Your task to perform on an android device: toggle notification dots Image 0: 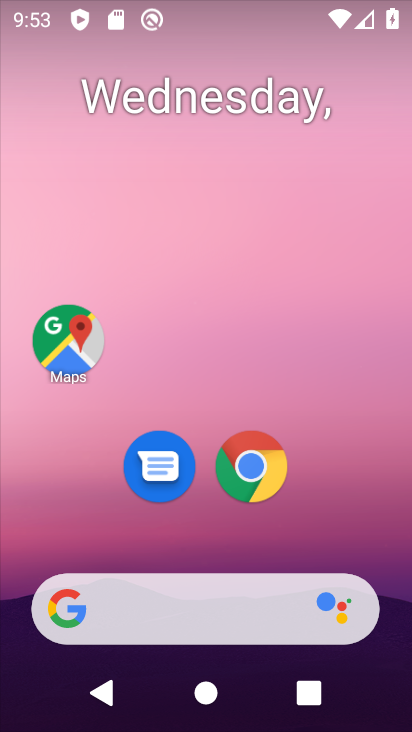
Step 0: drag from (226, 728) to (220, 218)
Your task to perform on an android device: toggle notification dots Image 1: 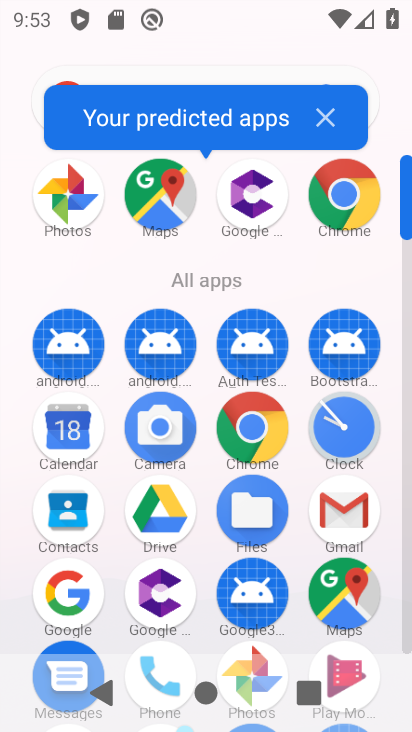
Step 1: drag from (199, 597) to (224, 230)
Your task to perform on an android device: toggle notification dots Image 2: 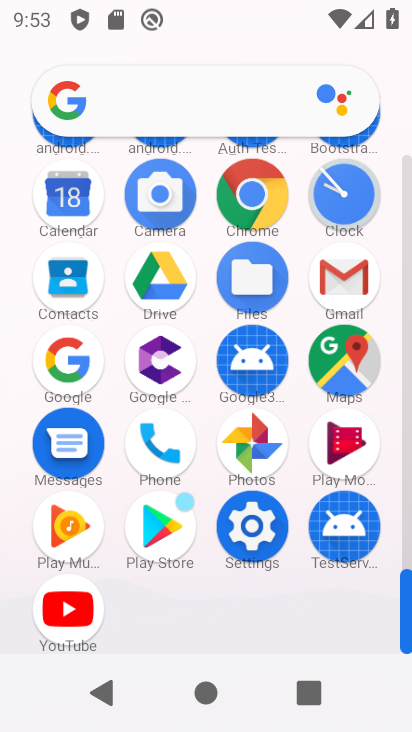
Step 2: click (256, 528)
Your task to perform on an android device: toggle notification dots Image 3: 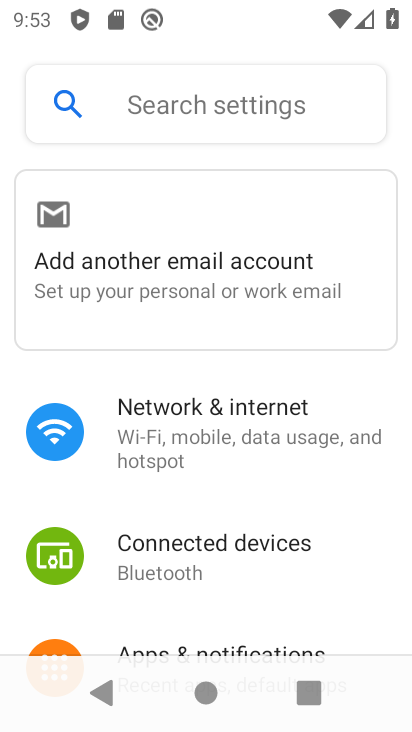
Step 3: drag from (192, 621) to (209, 342)
Your task to perform on an android device: toggle notification dots Image 4: 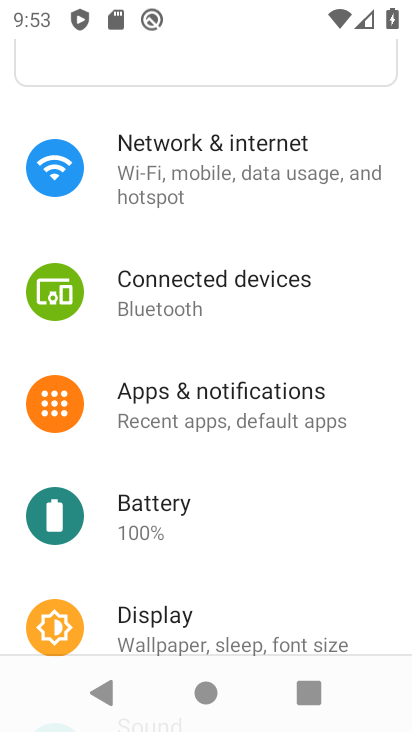
Step 4: click (213, 402)
Your task to perform on an android device: toggle notification dots Image 5: 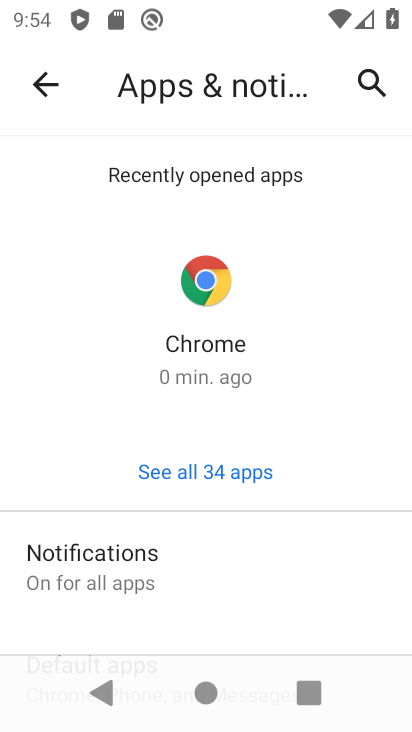
Step 5: drag from (162, 632) to (147, 370)
Your task to perform on an android device: toggle notification dots Image 6: 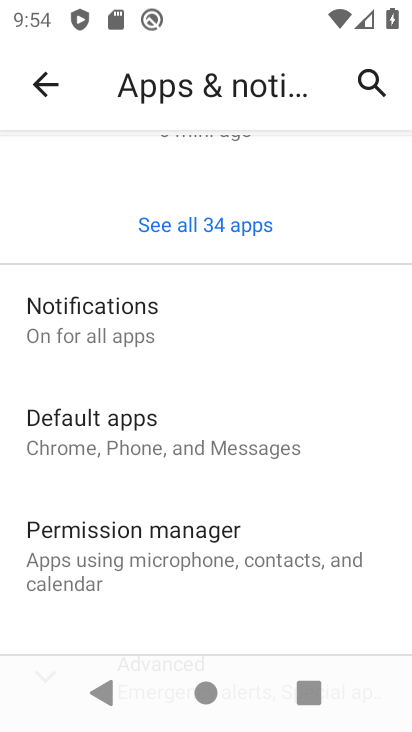
Step 6: click (71, 315)
Your task to perform on an android device: toggle notification dots Image 7: 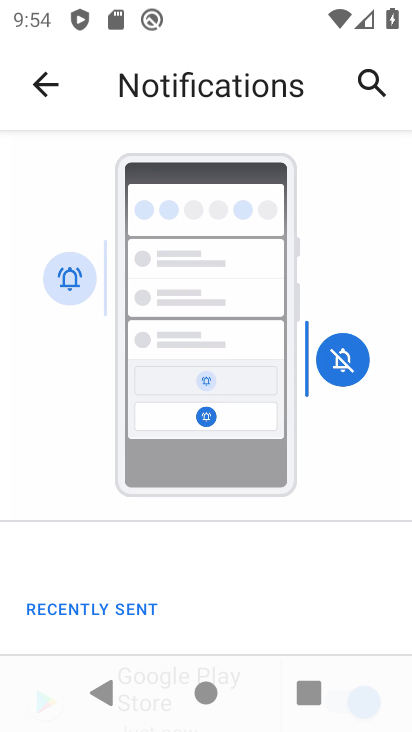
Step 7: drag from (145, 622) to (151, 257)
Your task to perform on an android device: toggle notification dots Image 8: 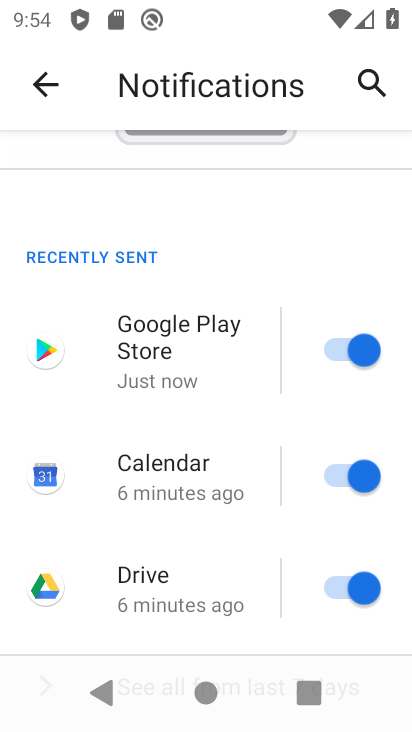
Step 8: drag from (175, 608) to (175, 292)
Your task to perform on an android device: toggle notification dots Image 9: 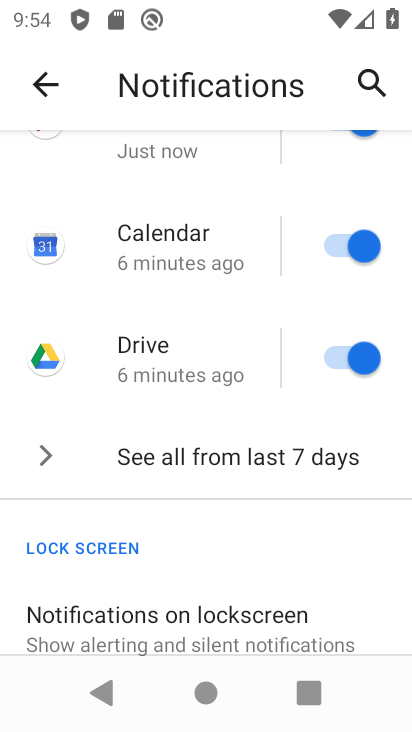
Step 9: drag from (200, 619) to (197, 414)
Your task to perform on an android device: toggle notification dots Image 10: 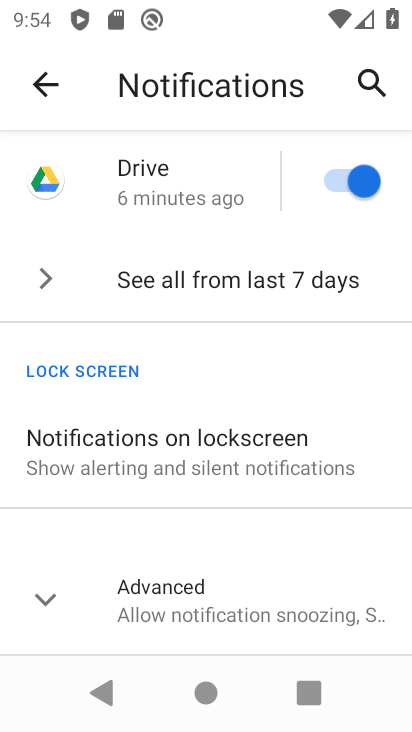
Step 10: click (158, 596)
Your task to perform on an android device: toggle notification dots Image 11: 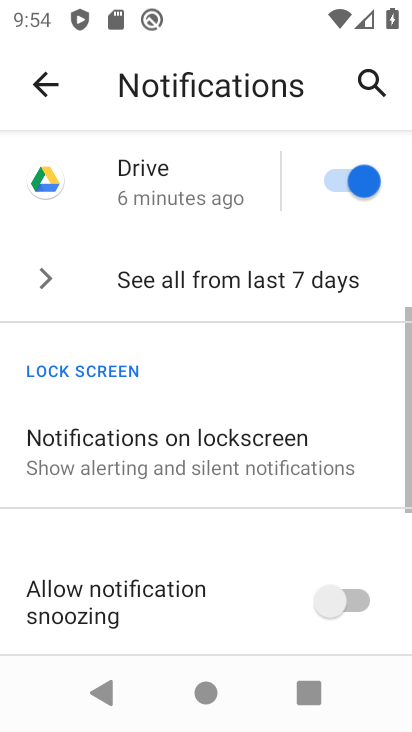
Step 11: drag from (192, 627) to (207, 356)
Your task to perform on an android device: toggle notification dots Image 12: 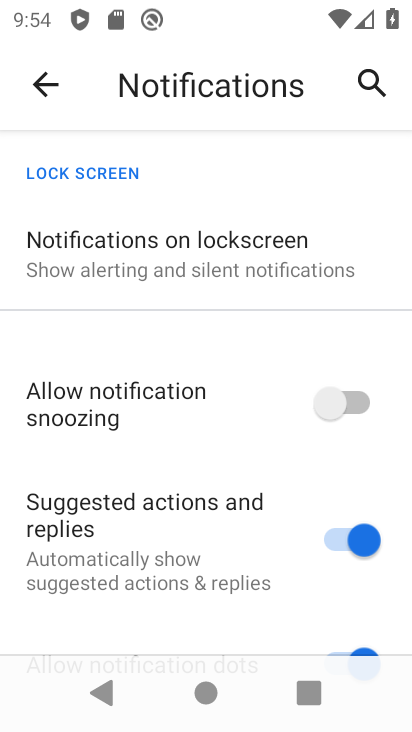
Step 12: drag from (240, 611) to (240, 378)
Your task to perform on an android device: toggle notification dots Image 13: 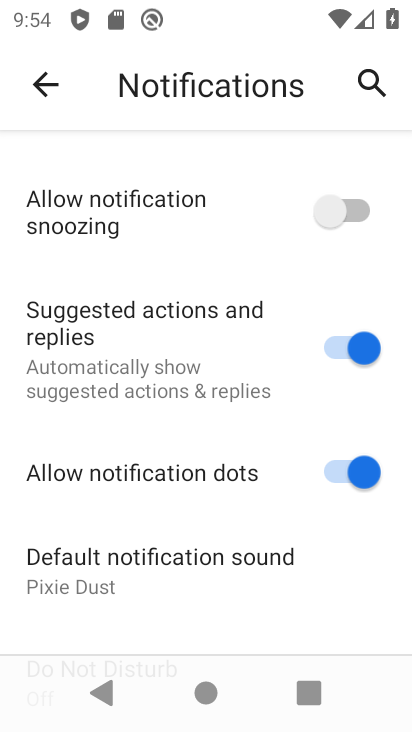
Step 13: click (339, 469)
Your task to perform on an android device: toggle notification dots Image 14: 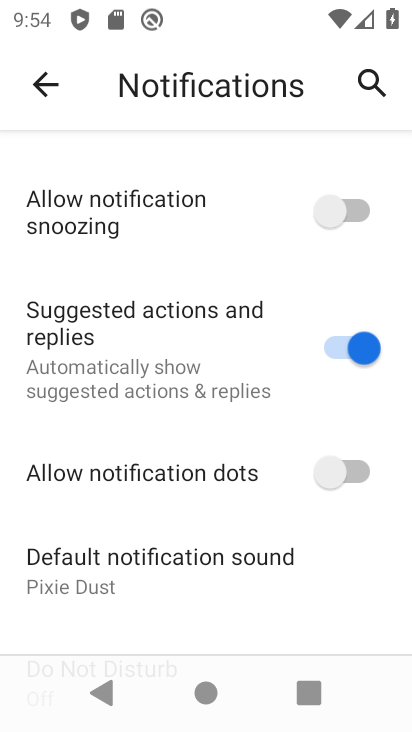
Step 14: task complete